Your task to perform on an android device: Open Google Maps Image 0: 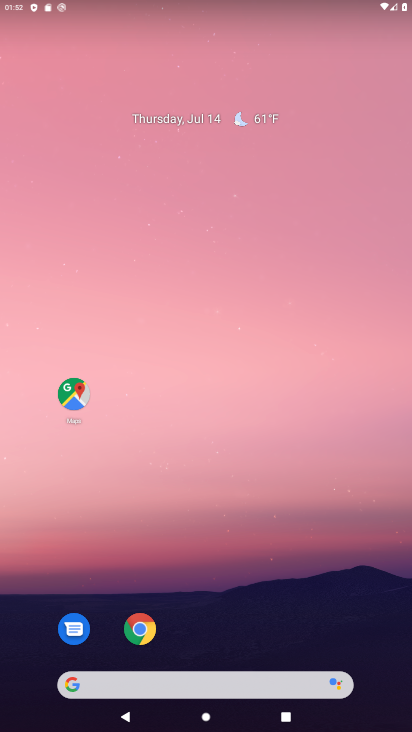
Step 0: click (77, 391)
Your task to perform on an android device: Open Google Maps Image 1: 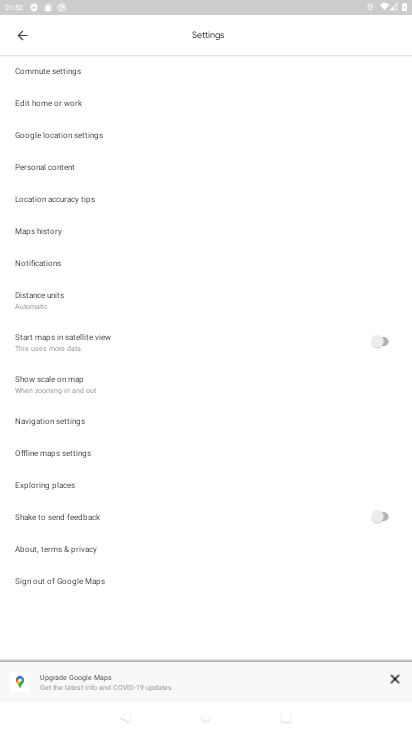
Step 1: click (27, 40)
Your task to perform on an android device: Open Google Maps Image 2: 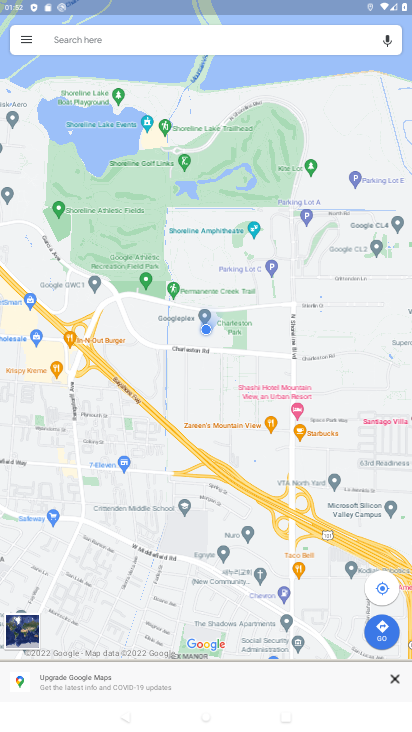
Step 2: task complete